Your task to perform on an android device: toggle improve location accuracy Image 0: 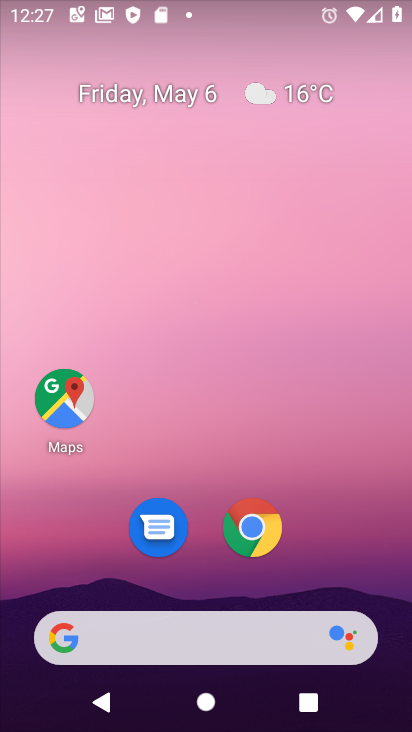
Step 0: drag from (333, 546) to (52, 90)
Your task to perform on an android device: toggle improve location accuracy Image 1: 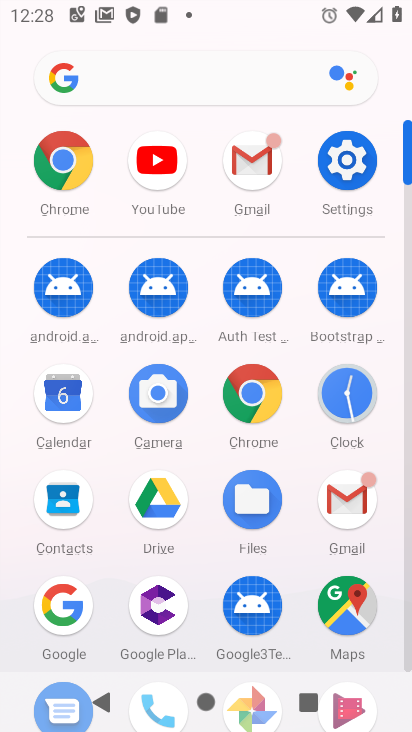
Step 1: click (341, 160)
Your task to perform on an android device: toggle improve location accuracy Image 2: 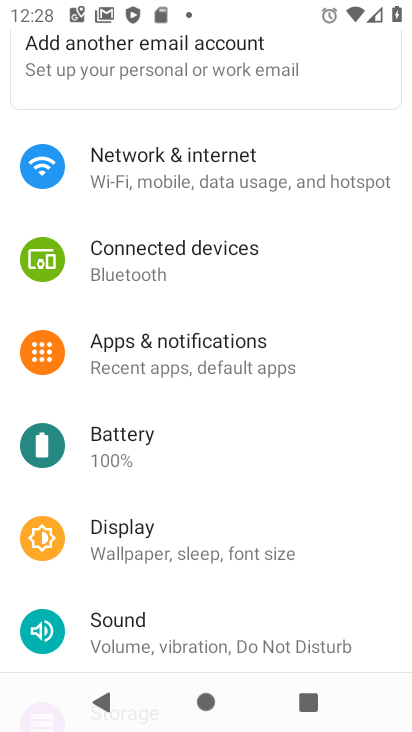
Step 2: drag from (220, 601) to (192, 202)
Your task to perform on an android device: toggle improve location accuracy Image 3: 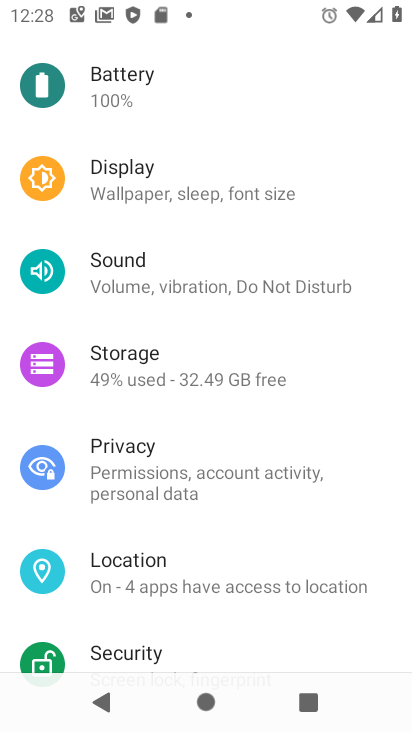
Step 3: click (145, 571)
Your task to perform on an android device: toggle improve location accuracy Image 4: 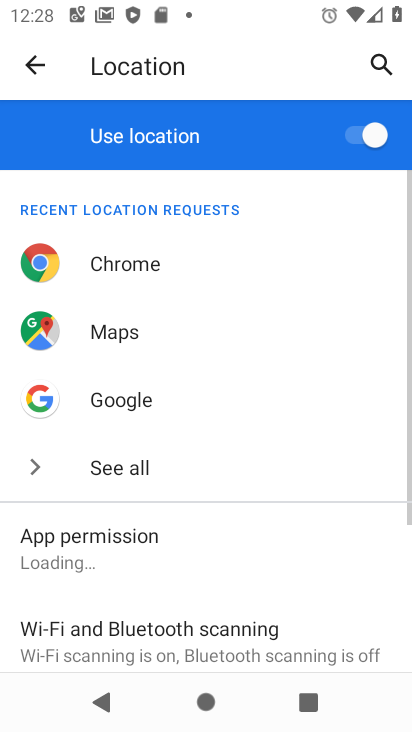
Step 4: drag from (208, 644) to (214, 267)
Your task to perform on an android device: toggle improve location accuracy Image 5: 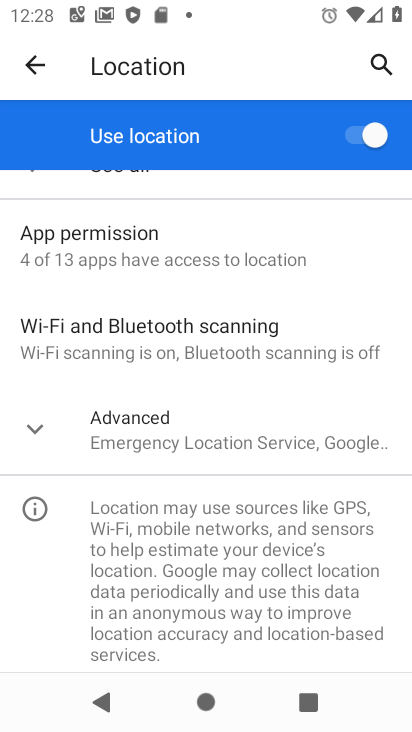
Step 5: click (152, 431)
Your task to perform on an android device: toggle improve location accuracy Image 6: 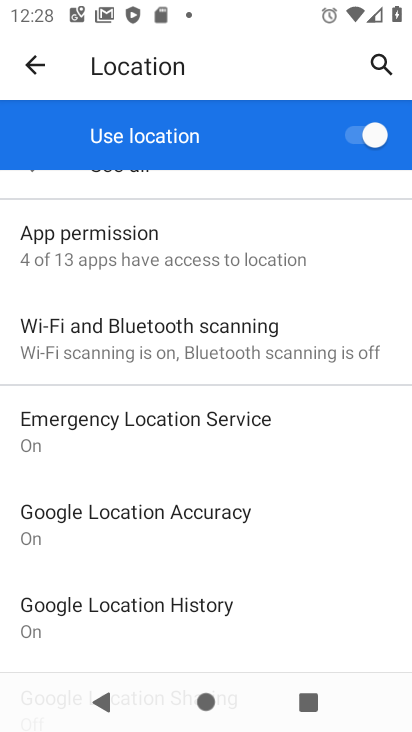
Step 6: click (153, 540)
Your task to perform on an android device: toggle improve location accuracy Image 7: 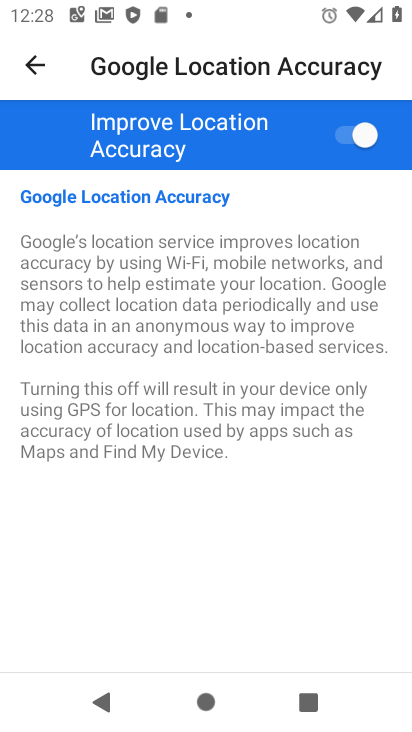
Step 7: click (363, 140)
Your task to perform on an android device: toggle improve location accuracy Image 8: 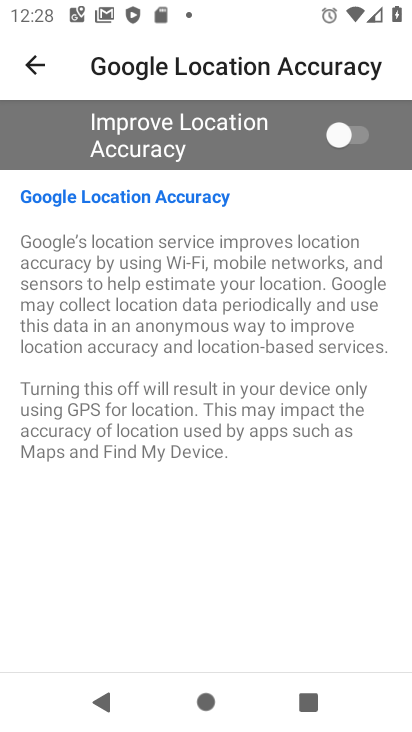
Step 8: task complete